Your task to perform on an android device: add a label to a message in the gmail app Image 0: 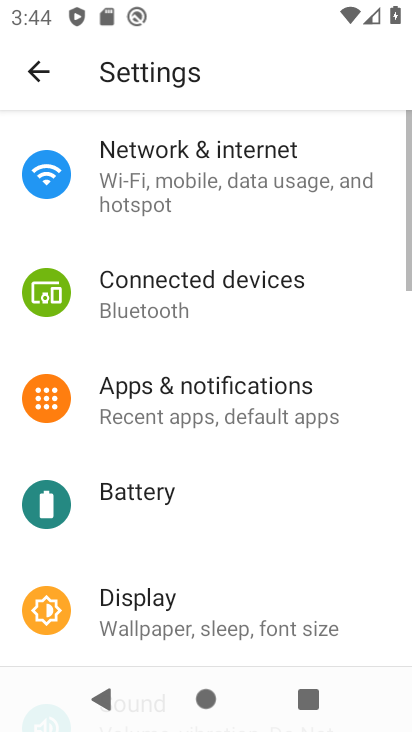
Step 0: drag from (163, 709) to (267, 353)
Your task to perform on an android device: add a label to a message in the gmail app Image 1: 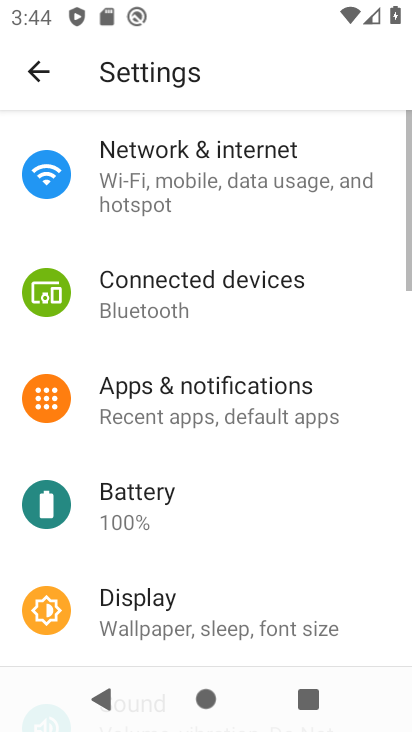
Step 1: press home button
Your task to perform on an android device: add a label to a message in the gmail app Image 2: 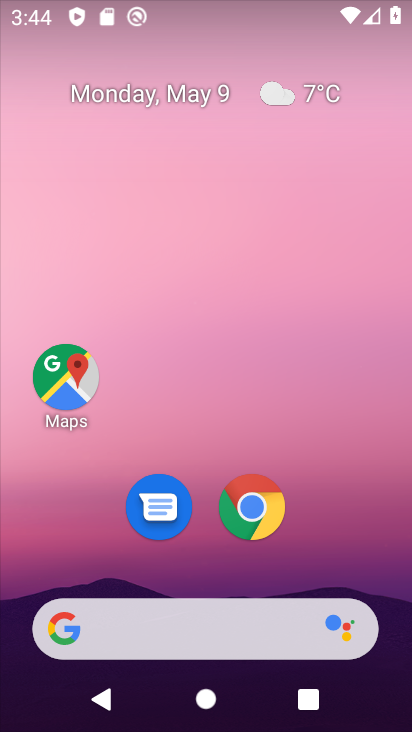
Step 2: click (157, 627)
Your task to perform on an android device: add a label to a message in the gmail app Image 3: 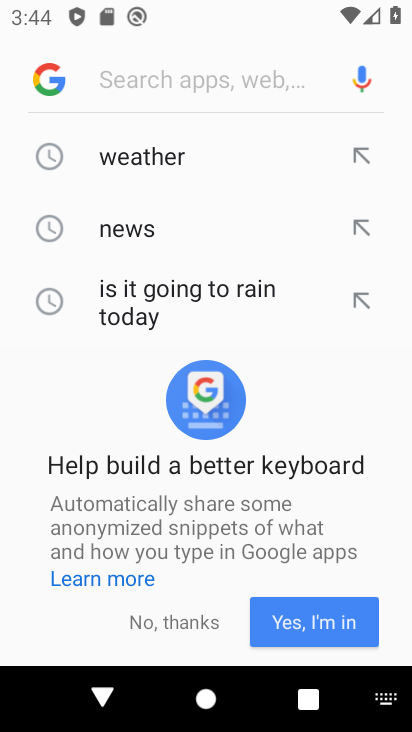
Step 3: click (187, 604)
Your task to perform on an android device: add a label to a message in the gmail app Image 4: 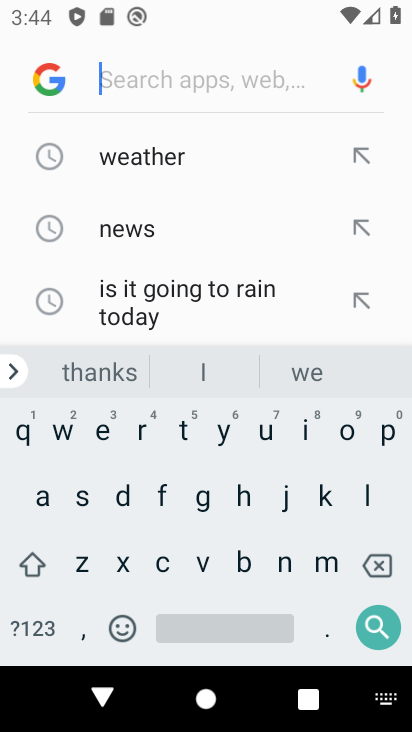
Step 4: press home button
Your task to perform on an android device: add a label to a message in the gmail app Image 5: 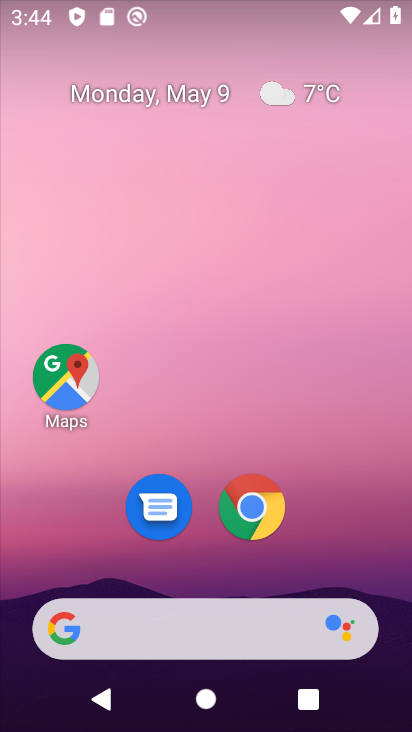
Step 5: drag from (229, 657) to (246, 502)
Your task to perform on an android device: add a label to a message in the gmail app Image 6: 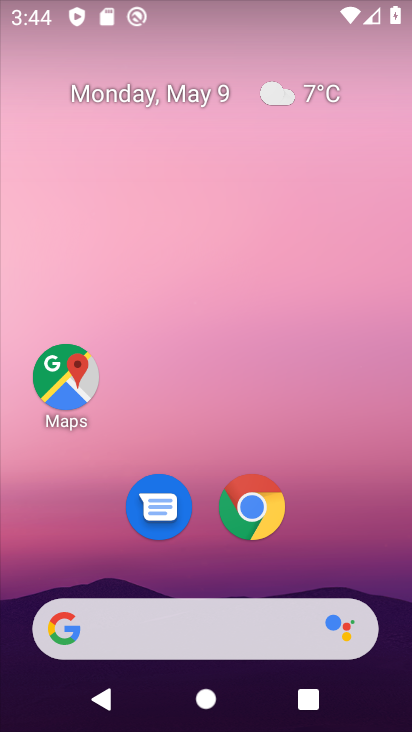
Step 6: drag from (194, 669) to (292, 180)
Your task to perform on an android device: add a label to a message in the gmail app Image 7: 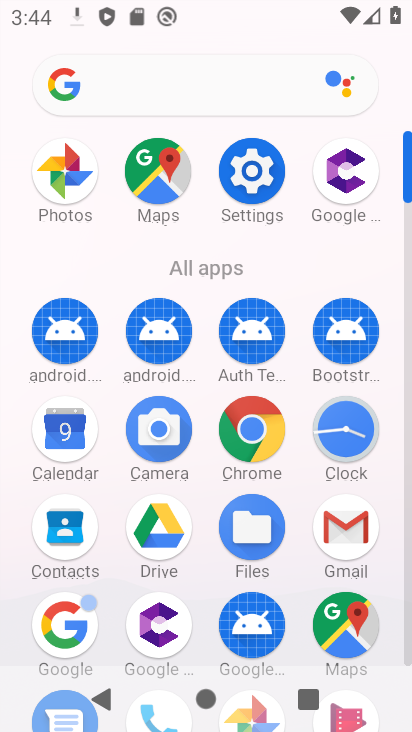
Step 7: click (330, 530)
Your task to perform on an android device: add a label to a message in the gmail app Image 8: 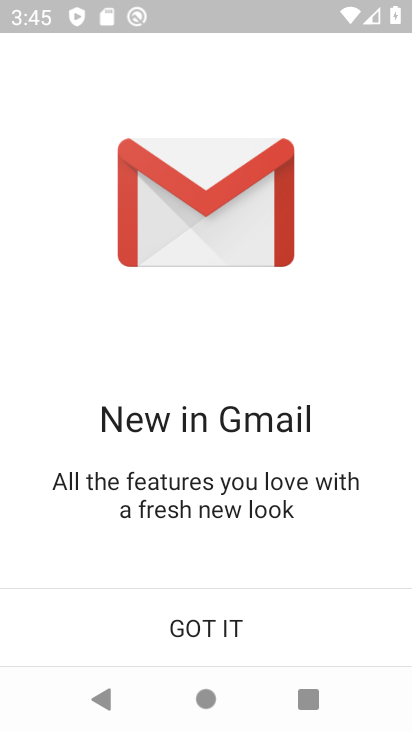
Step 8: click (187, 636)
Your task to perform on an android device: add a label to a message in the gmail app Image 9: 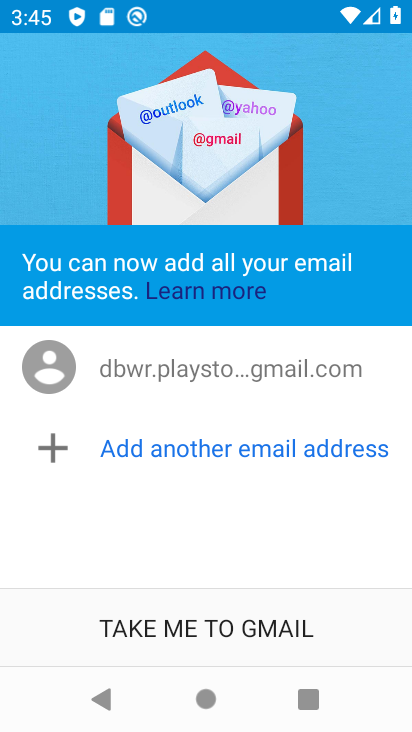
Step 9: click (189, 628)
Your task to perform on an android device: add a label to a message in the gmail app Image 10: 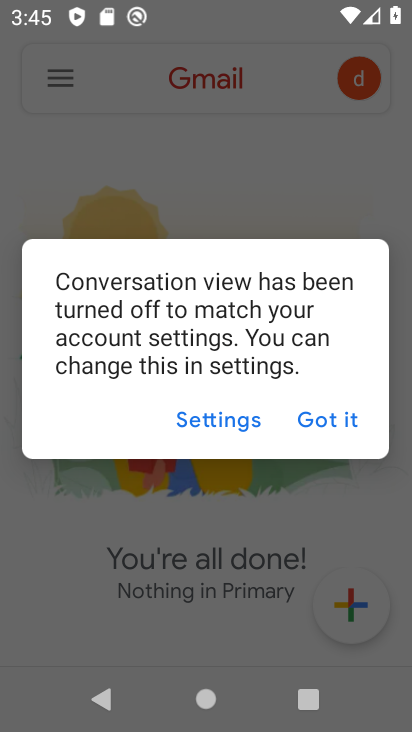
Step 10: click (301, 427)
Your task to perform on an android device: add a label to a message in the gmail app Image 11: 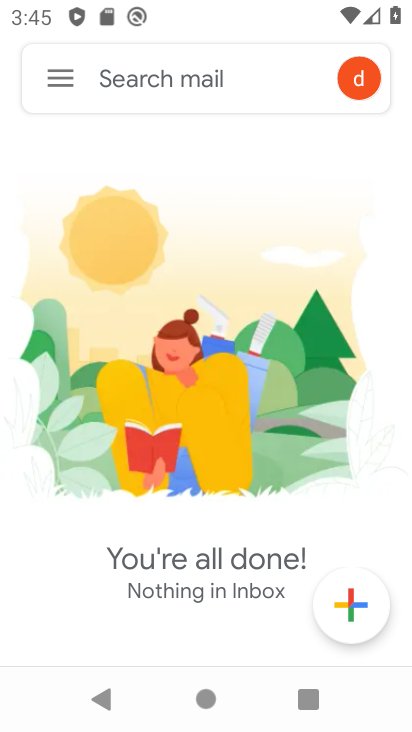
Step 11: click (50, 74)
Your task to perform on an android device: add a label to a message in the gmail app Image 12: 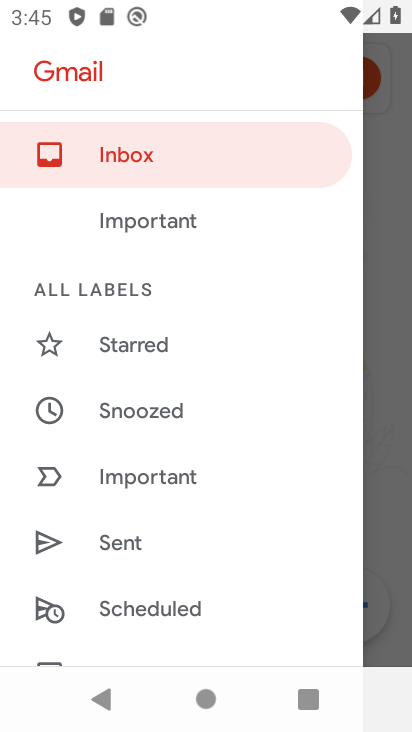
Step 12: drag from (144, 542) to (202, 23)
Your task to perform on an android device: add a label to a message in the gmail app Image 13: 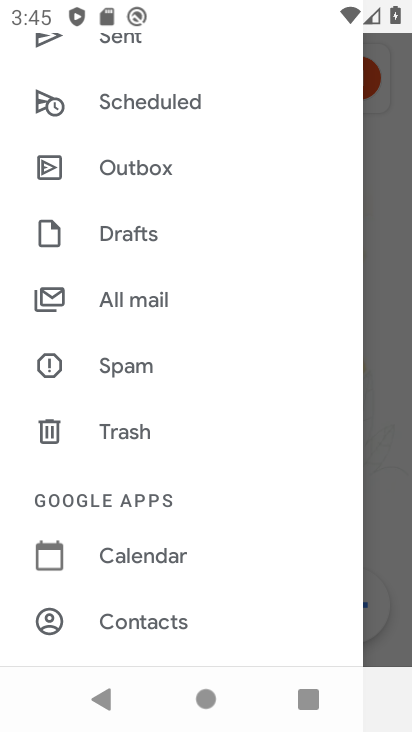
Step 13: drag from (114, 639) to (155, 332)
Your task to perform on an android device: add a label to a message in the gmail app Image 14: 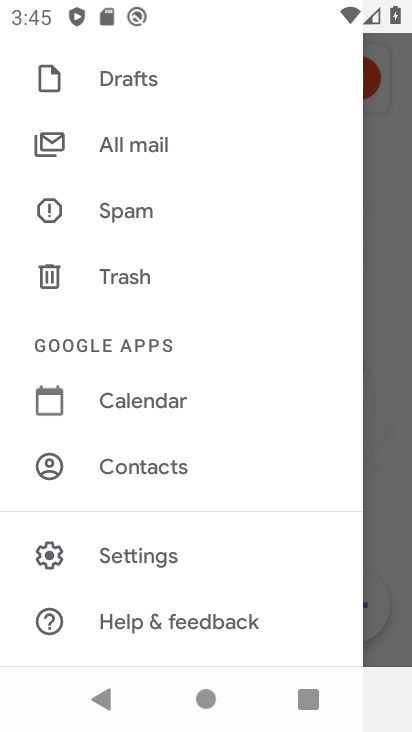
Step 14: click (130, 543)
Your task to perform on an android device: add a label to a message in the gmail app Image 15: 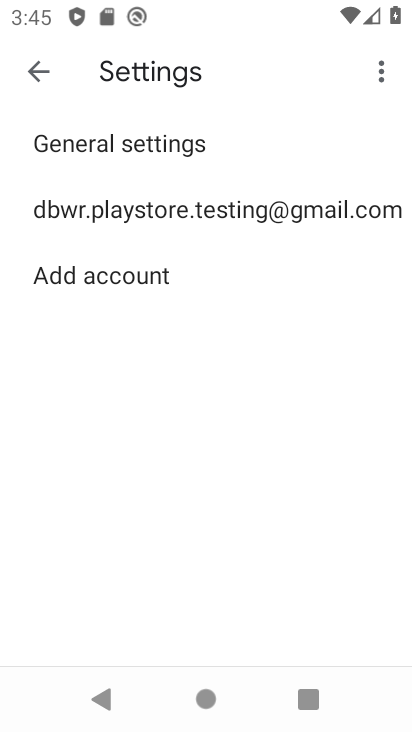
Step 15: click (158, 194)
Your task to perform on an android device: add a label to a message in the gmail app Image 16: 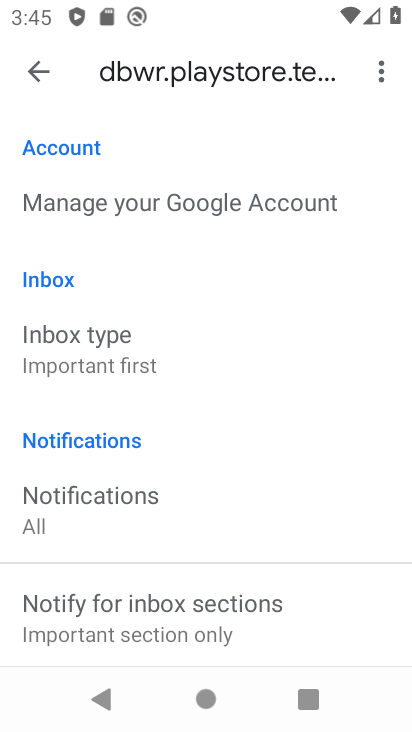
Step 16: drag from (69, 563) to (119, 285)
Your task to perform on an android device: add a label to a message in the gmail app Image 17: 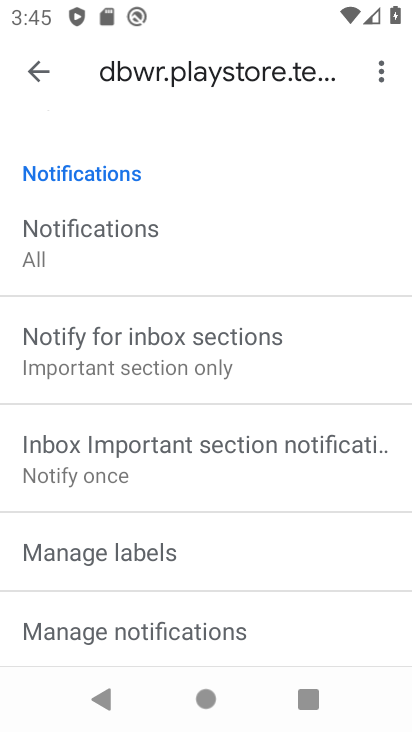
Step 17: click (96, 550)
Your task to perform on an android device: add a label to a message in the gmail app Image 18: 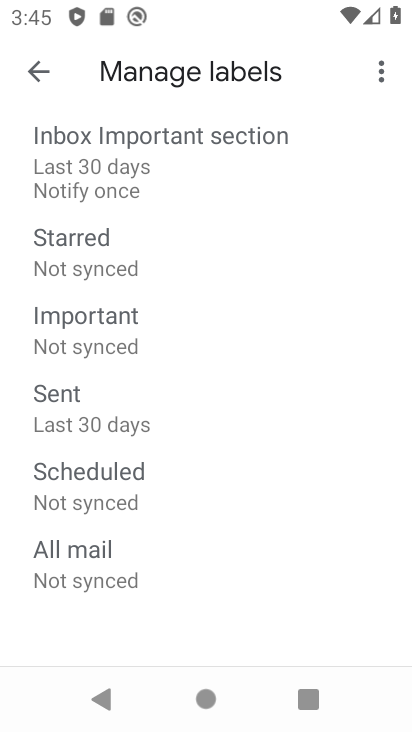
Step 18: click (77, 266)
Your task to perform on an android device: add a label to a message in the gmail app Image 19: 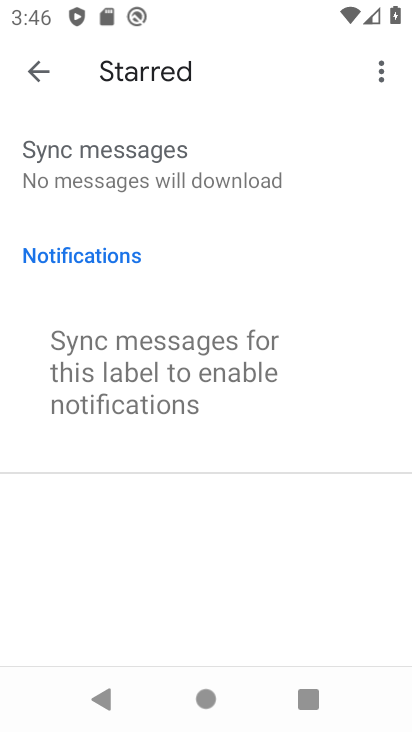
Step 19: task complete